Your task to perform on an android device: see creations saved in the google photos Image 0: 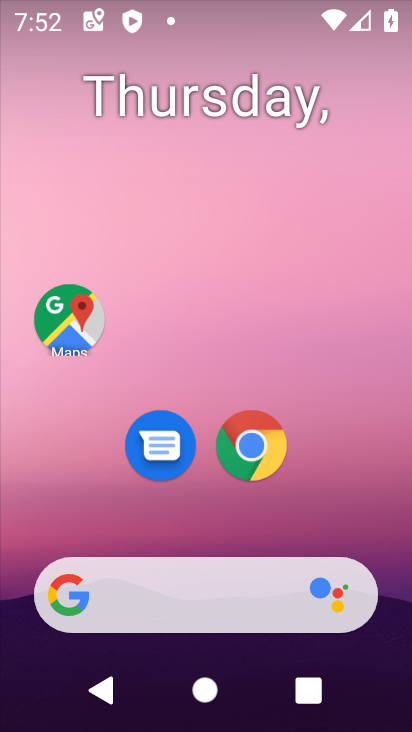
Step 0: drag from (240, 323) to (251, 158)
Your task to perform on an android device: see creations saved in the google photos Image 1: 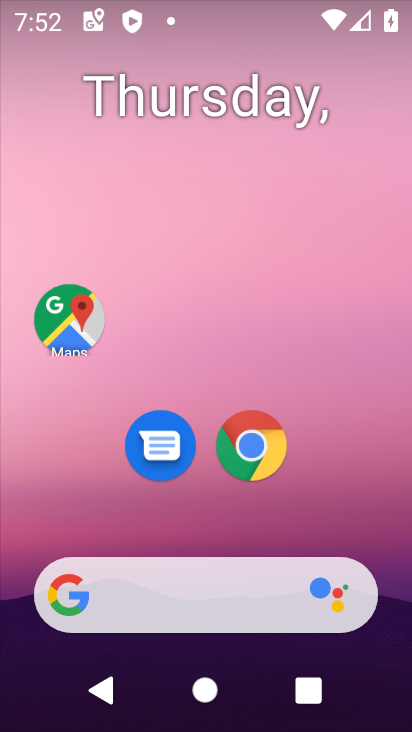
Step 1: drag from (209, 507) to (206, 123)
Your task to perform on an android device: see creations saved in the google photos Image 2: 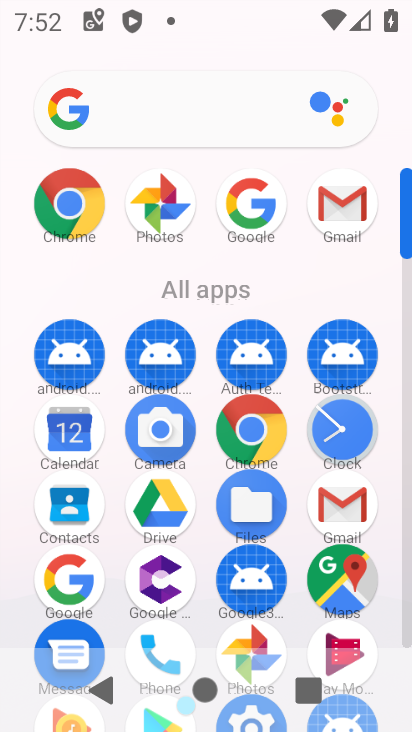
Step 2: click (249, 635)
Your task to perform on an android device: see creations saved in the google photos Image 3: 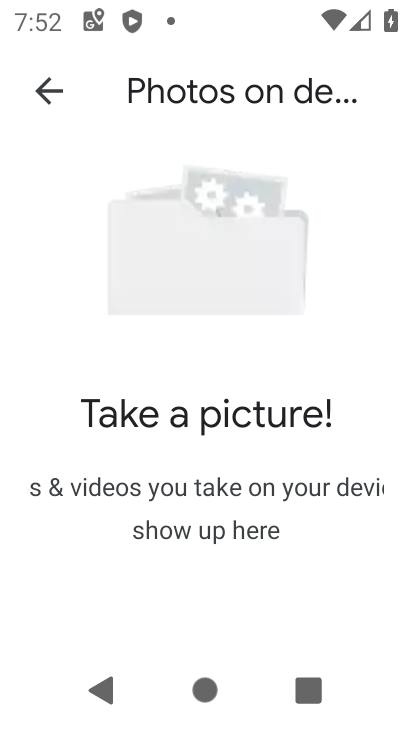
Step 3: click (49, 86)
Your task to perform on an android device: see creations saved in the google photos Image 4: 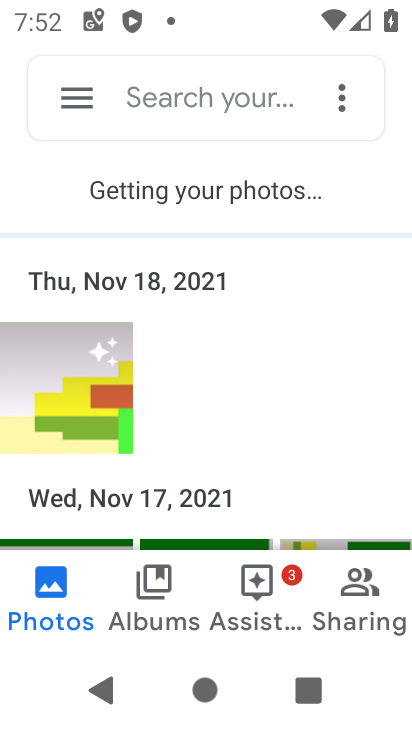
Step 4: drag from (235, 479) to (255, 138)
Your task to perform on an android device: see creations saved in the google photos Image 5: 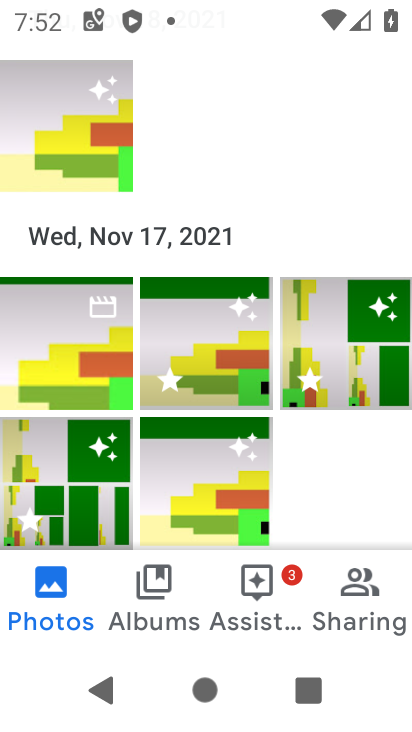
Step 5: drag from (208, 499) to (242, 212)
Your task to perform on an android device: see creations saved in the google photos Image 6: 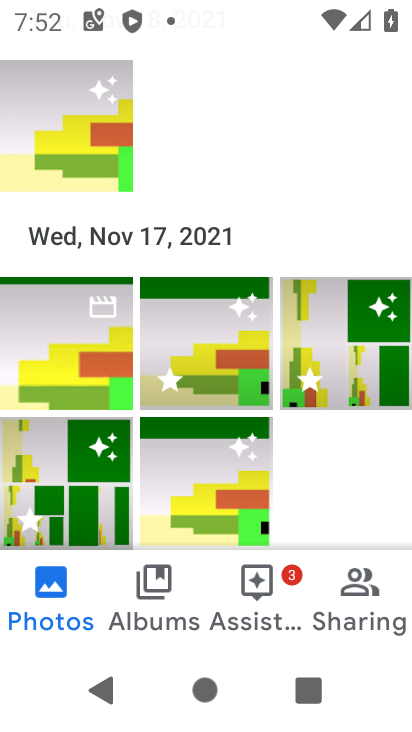
Step 6: drag from (200, 473) to (200, 259)
Your task to perform on an android device: see creations saved in the google photos Image 7: 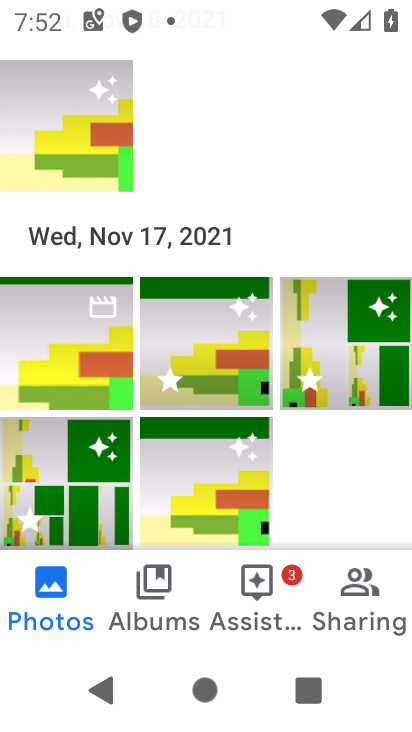
Step 7: drag from (200, 240) to (221, 585)
Your task to perform on an android device: see creations saved in the google photos Image 8: 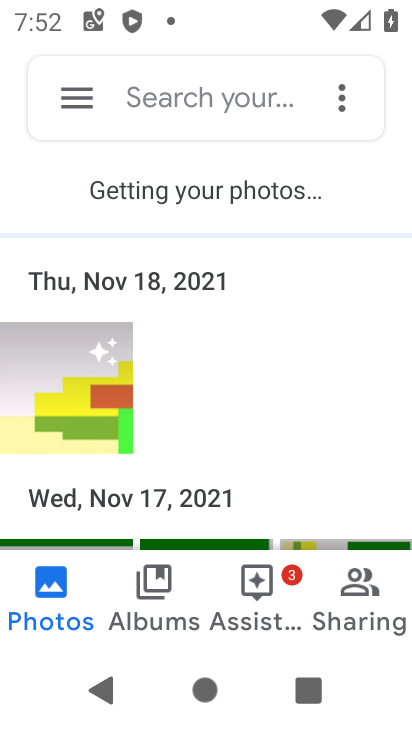
Step 8: click (154, 579)
Your task to perform on an android device: see creations saved in the google photos Image 9: 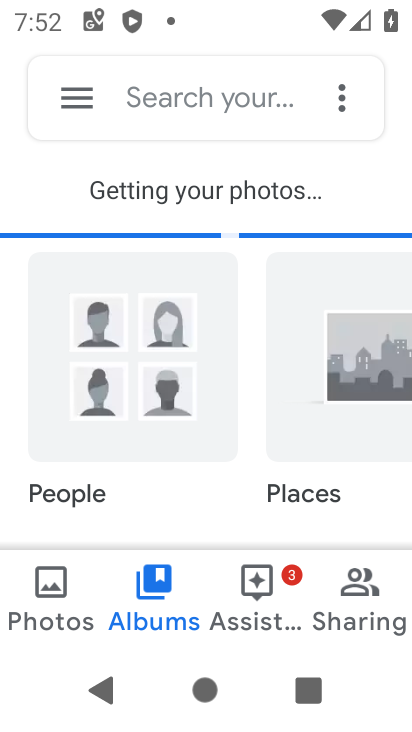
Step 9: click (55, 575)
Your task to perform on an android device: see creations saved in the google photos Image 10: 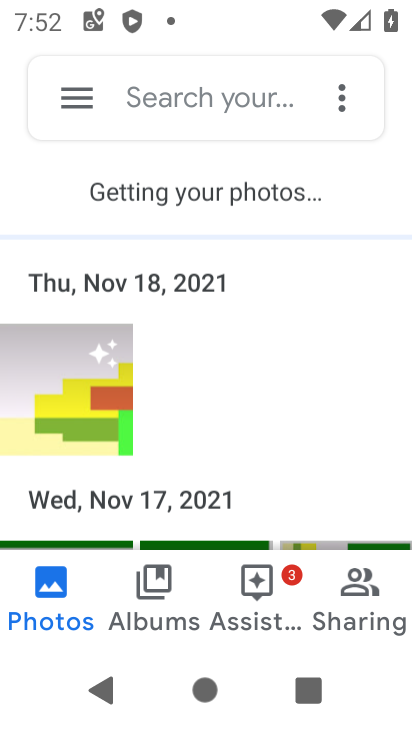
Step 10: click (150, 92)
Your task to perform on an android device: see creations saved in the google photos Image 11: 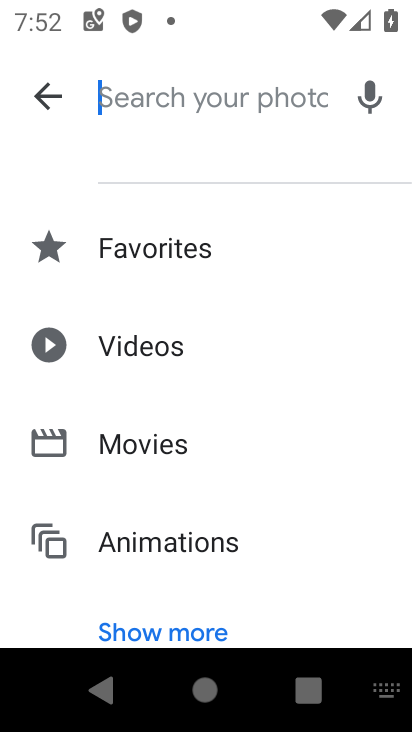
Step 11: drag from (221, 486) to (322, 62)
Your task to perform on an android device: see creations saved in the google photos Image 12: 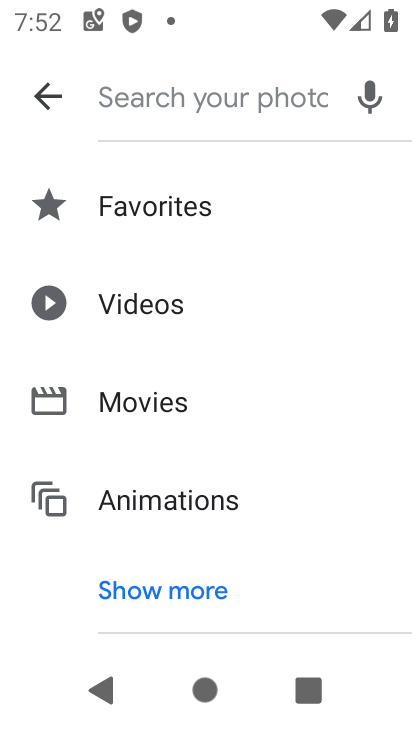
Step 12: click (152, 590)
Your task to perform on an android device: see creations saved in the google photos Image 13: 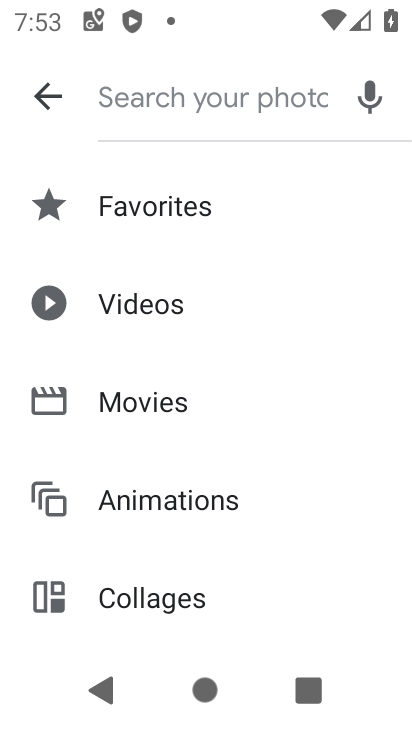
Step 13: drag from (142, 581) to (278, 76)
Your task to perform on an android device: see creations saved in the google photos Image 14: 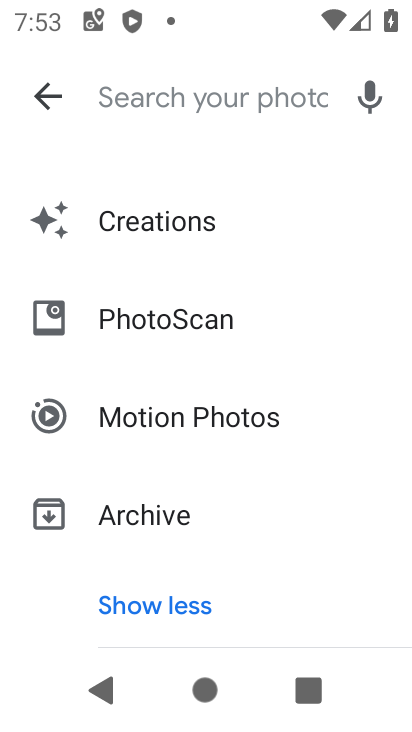
Step 14: drag from (207, 550) to (263, 117)
Your task to perform on an android device: see creations saved in the google photos Image 15: 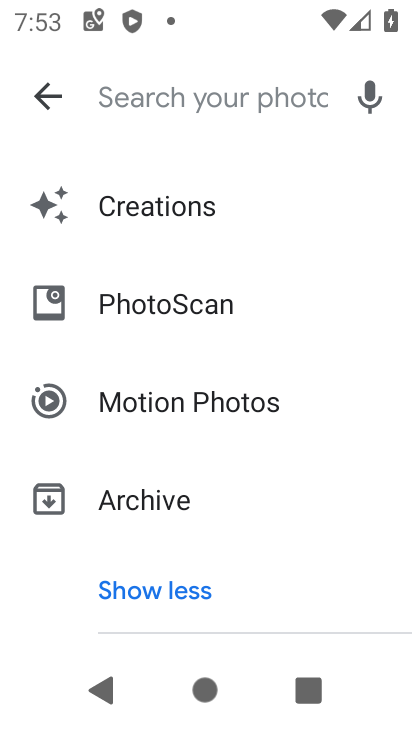
Step 15: click (137, 212)
Your task to perform on an android device: see creations saved in the google photos Image 16: 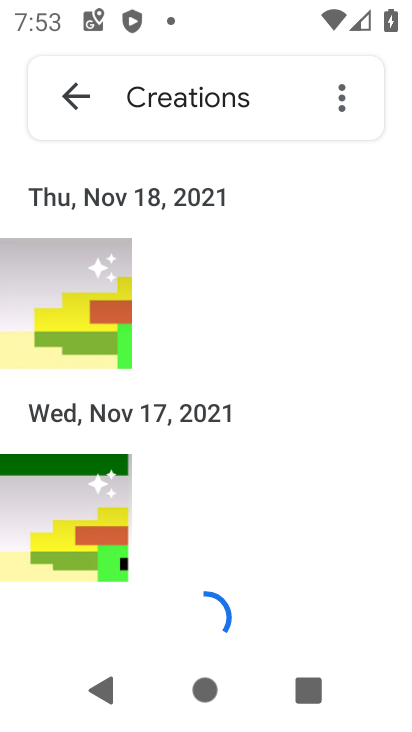
Step 16: drag from (198, 531) to (231, 305)
Your task to perform on an android device: see creations saved in the google photos Image 17: 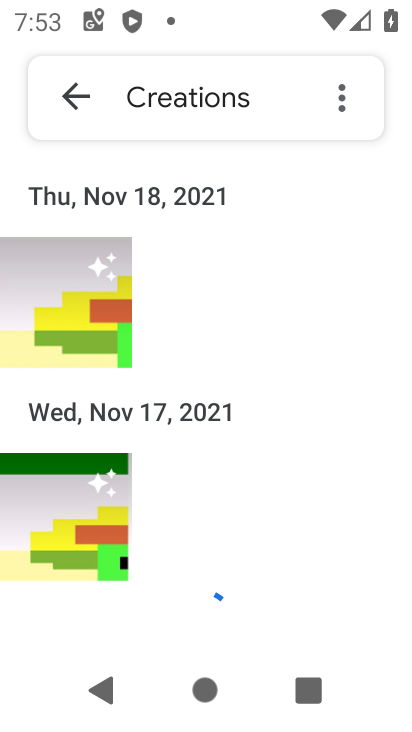
Step 17: click (80, 311)
Your task to perform on an android device: see creations saved in the google photos Image 18: 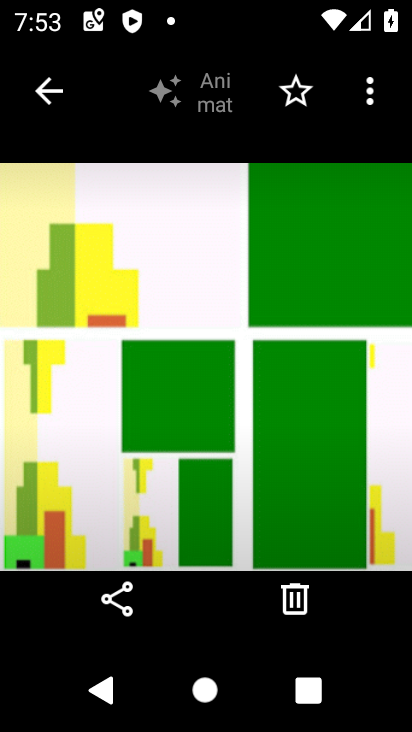
Step 18: task complete